Your task to perform on an android device: read, delete, or share a saved page in the chrome app Image 0: 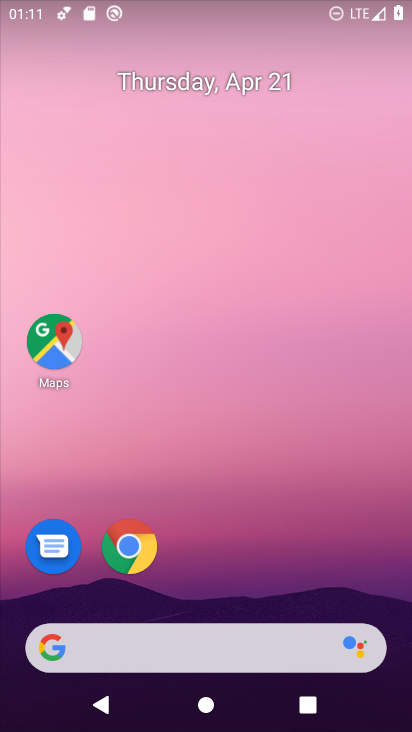
Step 0: click (131, 551)
Your task to perform on an android device: read, delete, or share a saved page in the chrome app Image 1: 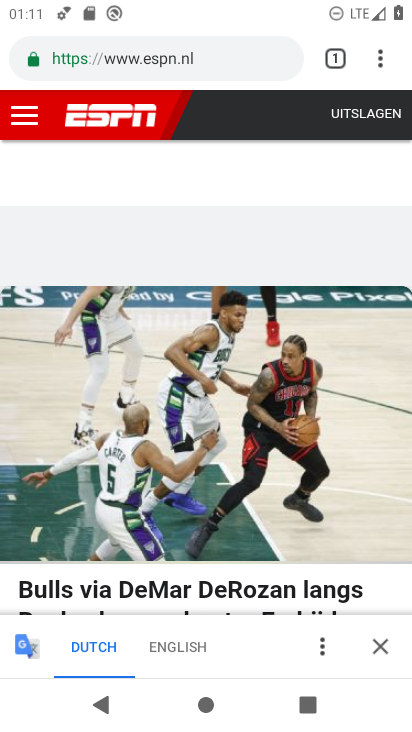
Step 1: click (376, 68)
Your task to perform on an android device: read, delete, or share a saved page in the chrome app Image 2: 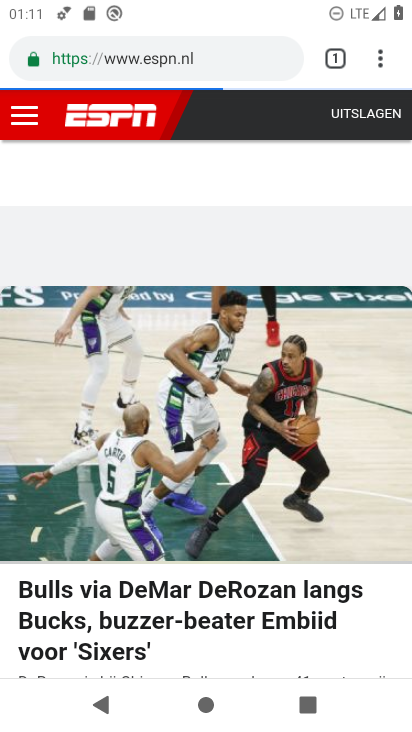
Step 2: task complete